Your task to perform on an android device: Open ESPN.com Image 0: 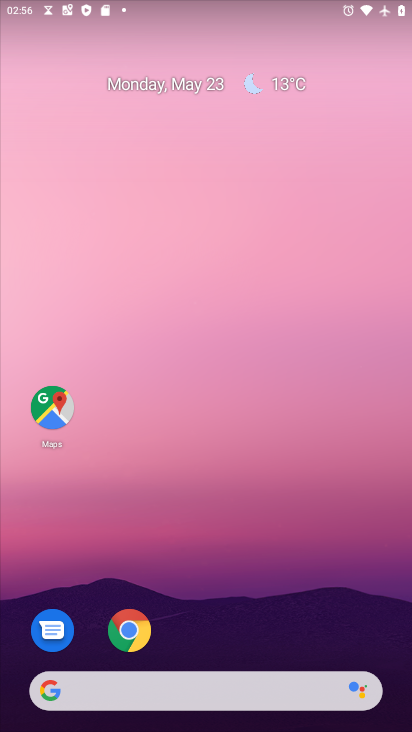
Step 0: press home button
Your task to perform on an android device: Open ESPN.com Image 1: 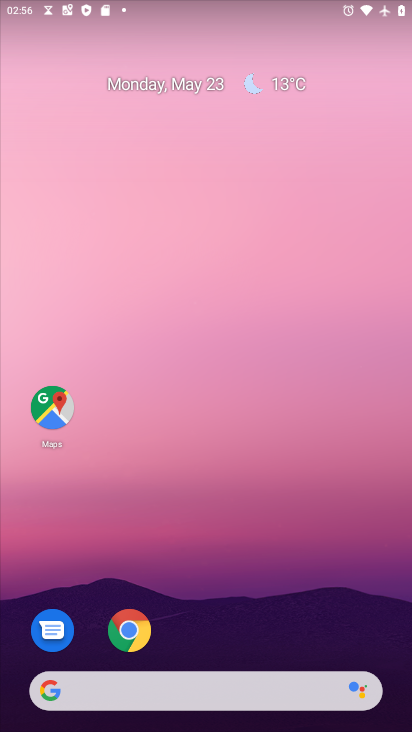
Step 1: drag from (290, 595) to (174, 53)
Your task to perform on an android device: Open ESPN.com Image 2: 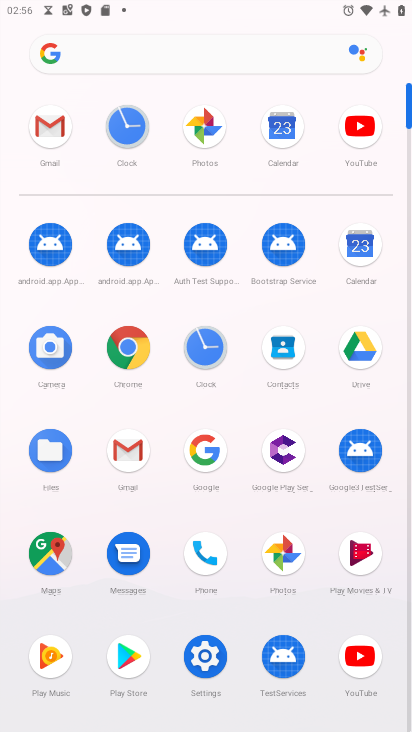
Step 2: click (139, 365)
Your task to perform on an android device: Open ESPN.com Image 3: 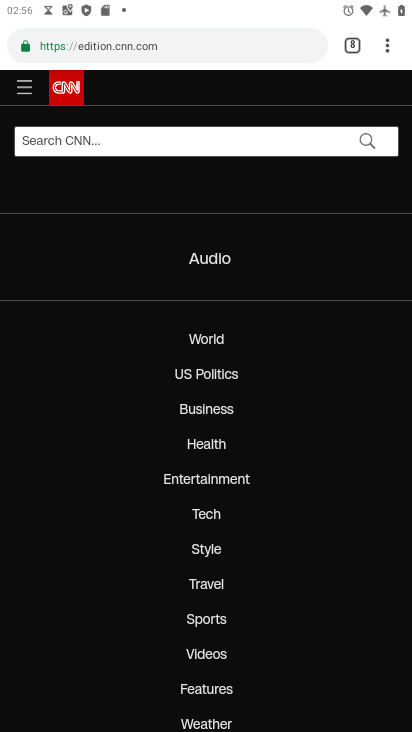
Step 3: click (352, 49)
Your task to perform on an android device: Open ESPN.com Image 4: 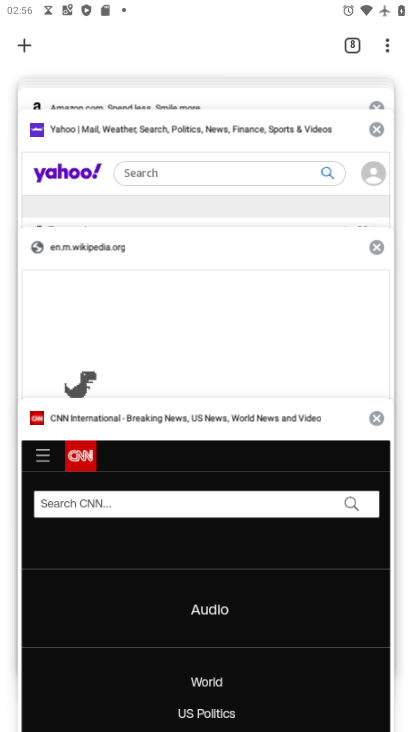
Step 4: click (21, 42)
Your task to perform on an android device: Open ESPN.com Image 5: 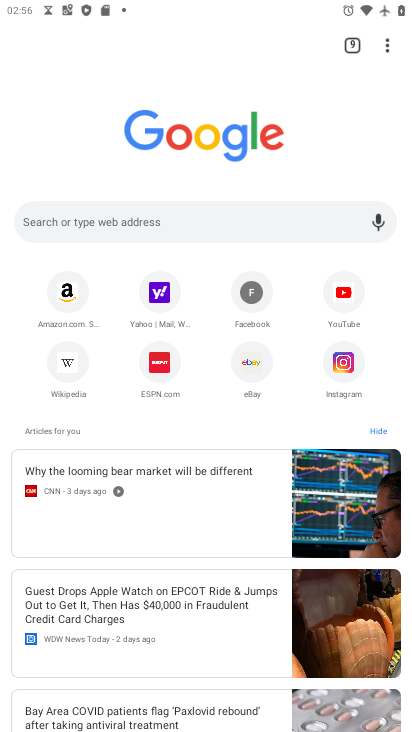
Step 5: click (163, 361)
Your task to perform on an android device: Open ESPN.com Image 6: 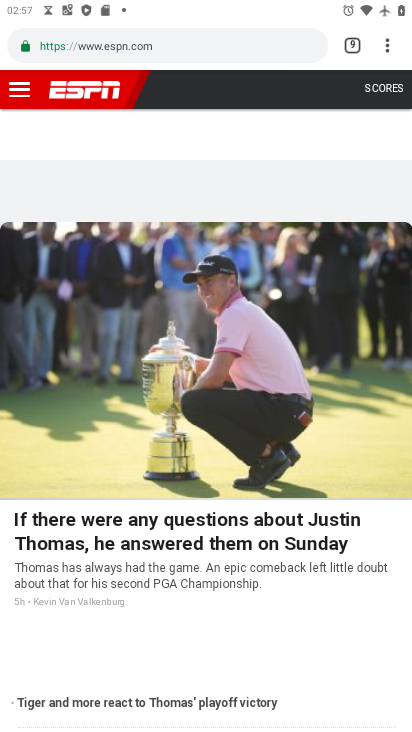
Step 6: task complete